Your task to perform on an android device: read, delete, or share a saved page in the chrome app Image 0: 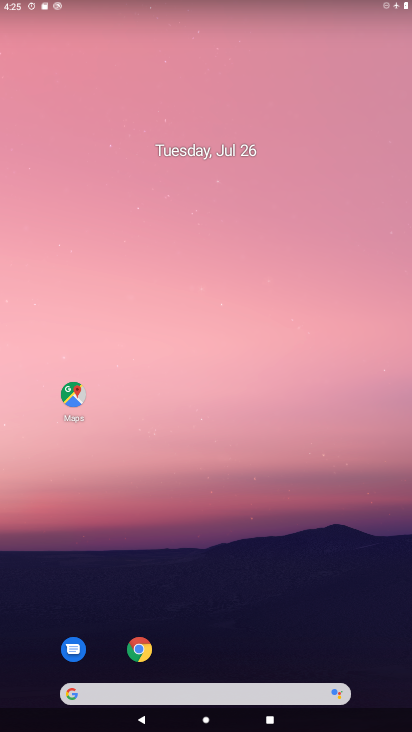
Step 0: drag from (376, 645) to (180, 16)
Your task to perform on an android device: read, delete, or share a saved page in the chrome app Image 1: 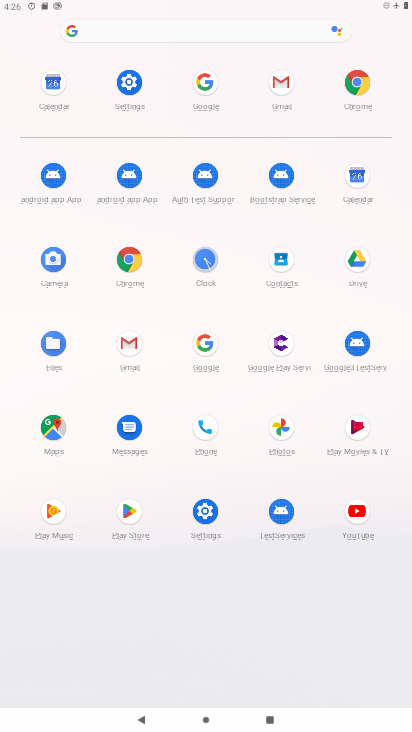
Step 1: click (127, 259)
Your task to perform on an android device: read, delete, or share a saved page in the chrome app Image 2: 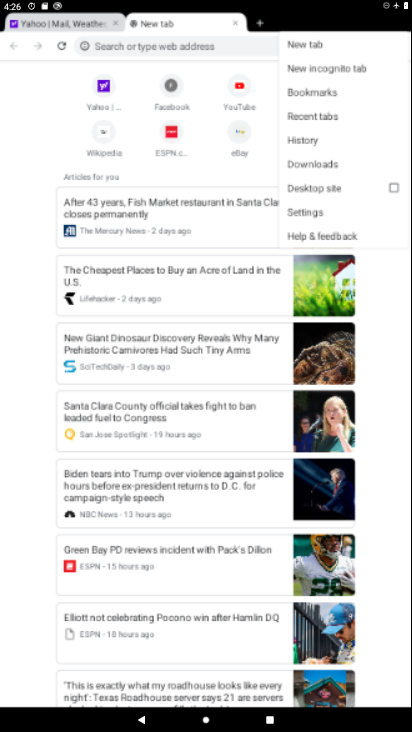
Step 2: task complete